Your task to perform on an android device: Google the capital of Peru Image 0: 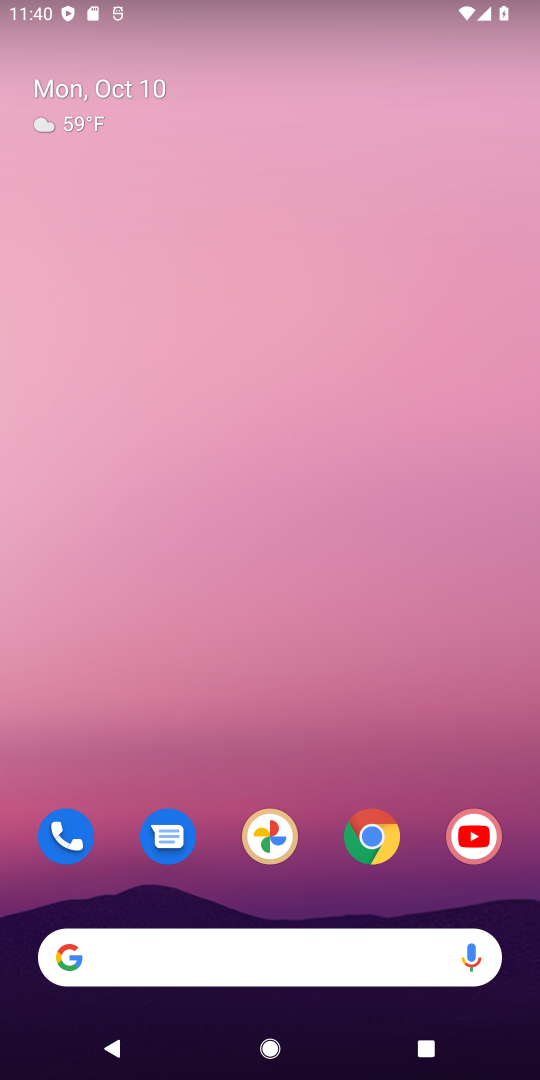
Step 0: click (361, 841)
Your task to perform on an android device: Google the capital of Peru Image 1: 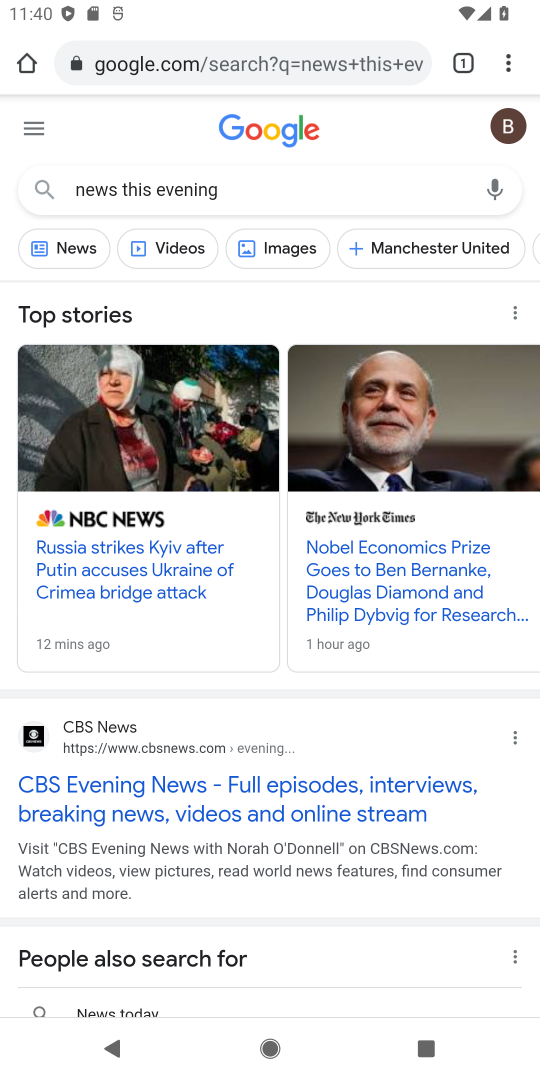
Step 1: click (200, 60)
Your task to perform on an android device: Google the capital of Peru Image 2: 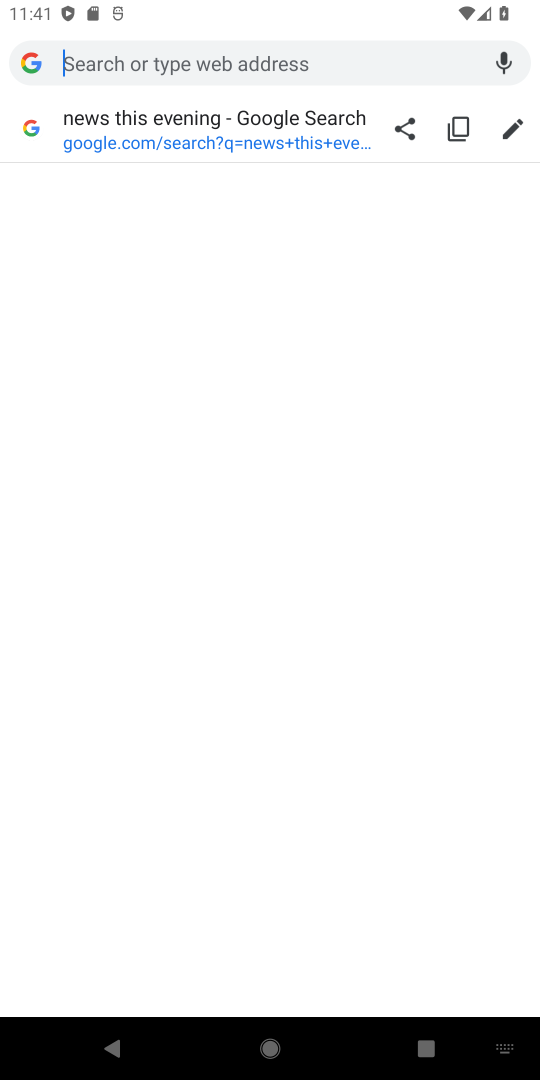
Step 2: type "peru capital"
Your task to perform on an android device: Google the capital of Peru Image 3: 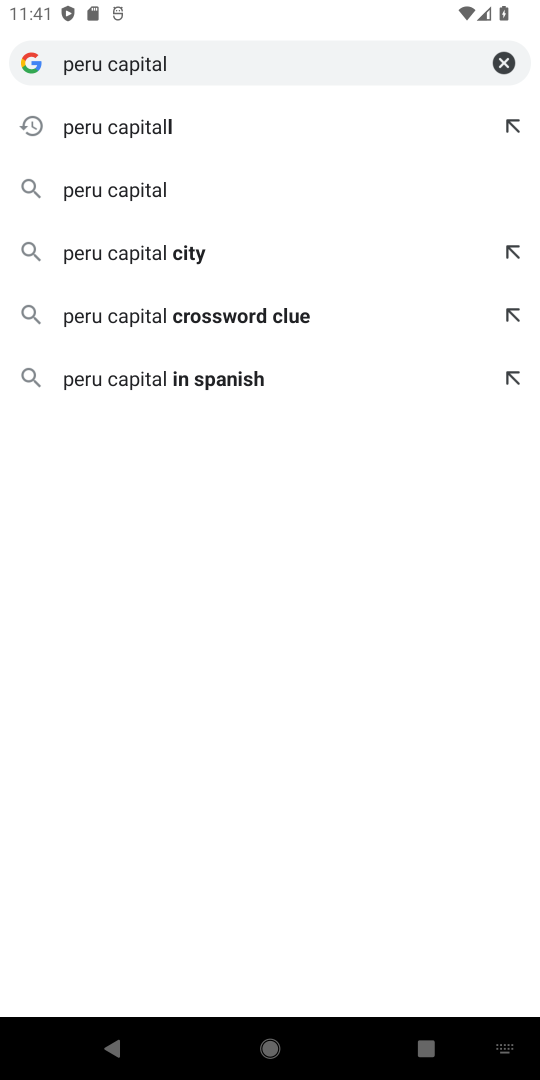
Step 3: click (145, 194)
Your task to perform on an android device: Google the capital of Peru Image 4: 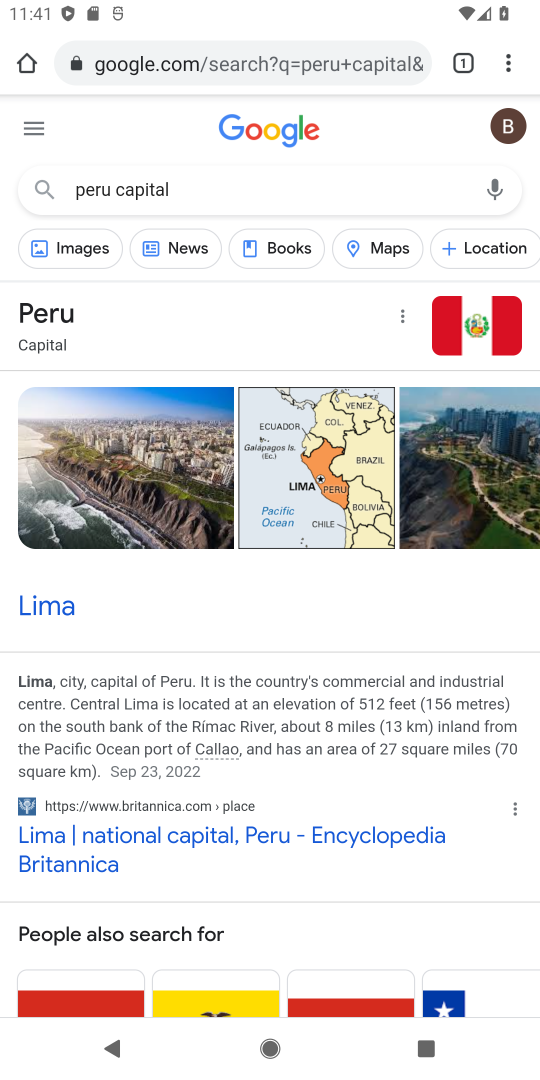
Step 4: task complete